Your task to perform on an android device: open device folders in google photos Image 0: 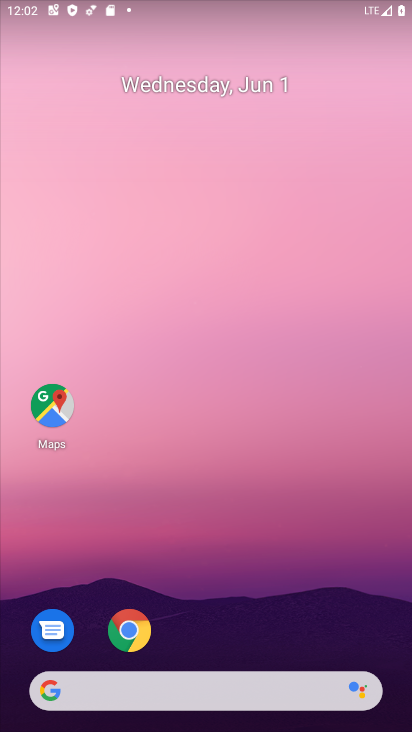
Step 0: drag from (271, 630) to (255, 180)
Your task to perform on an android device: open device folders in google photos Image 1: 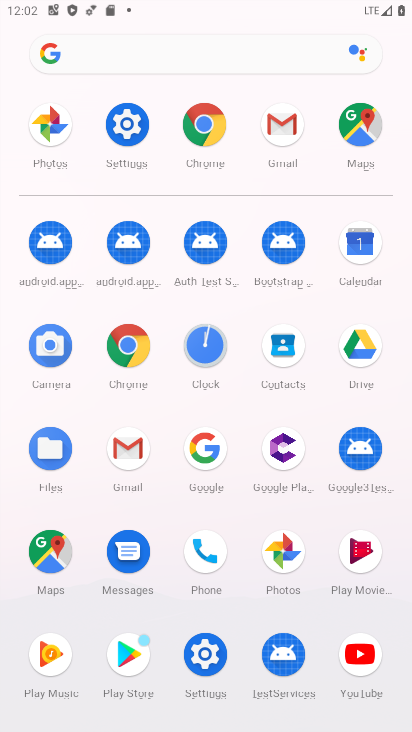
Step 1: click (46, 120)
Your task to perform on an android device: open device folders in google photos Image 2: 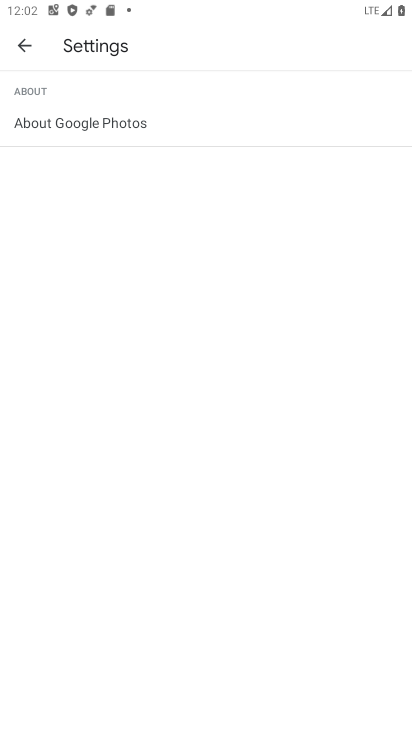
Step 2: click (22, 45)
Your task to perform on an android device: open device folders in google photos Image 3: 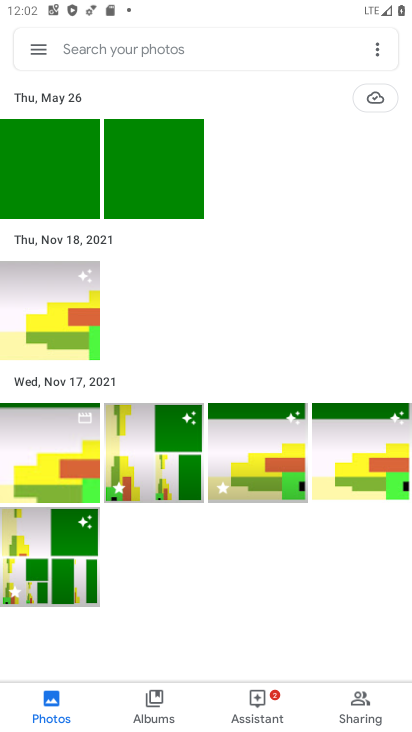
Step 3: click (157, 694)
Your task to perform on an android device: open device folders in google photos Image 4: 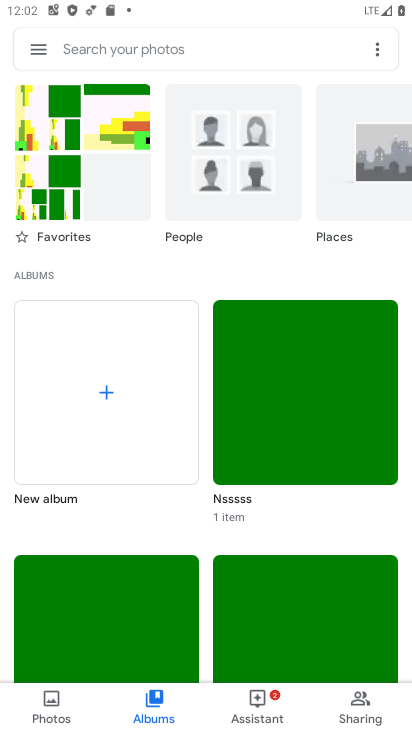
Step 4: drag from (172, 434) to (242, 60)
Your task to perform on an android device: open device folders in google photos Image 5: 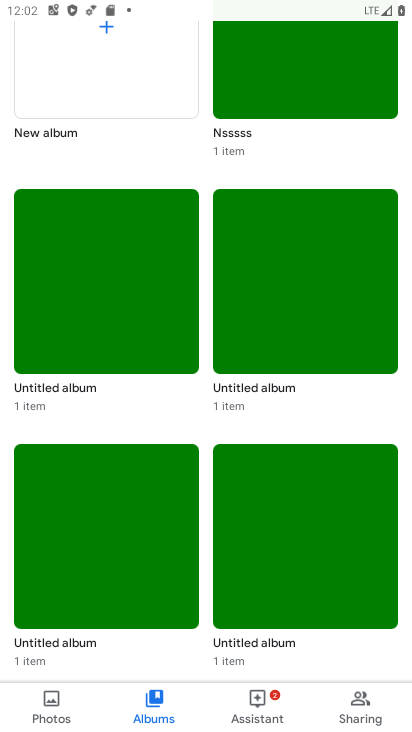
Step 5: drag from (275, 423) to (304, 695)
Your task to perform on an android device: open device folders in google photos Image 6: 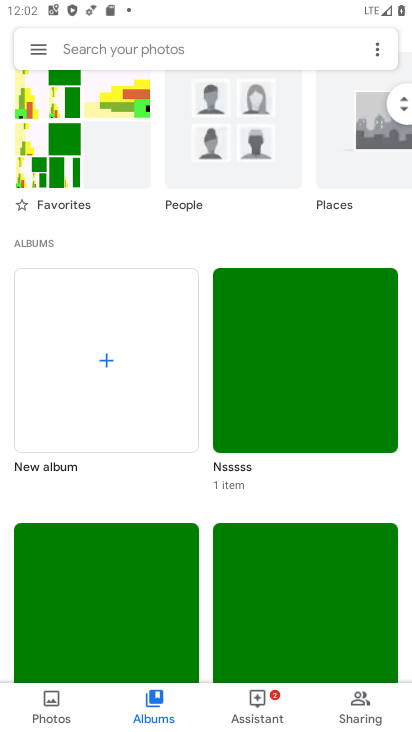
Step 6: click (237, 144)
Your task to perform on an android device: open device folders in google photos Image 7: 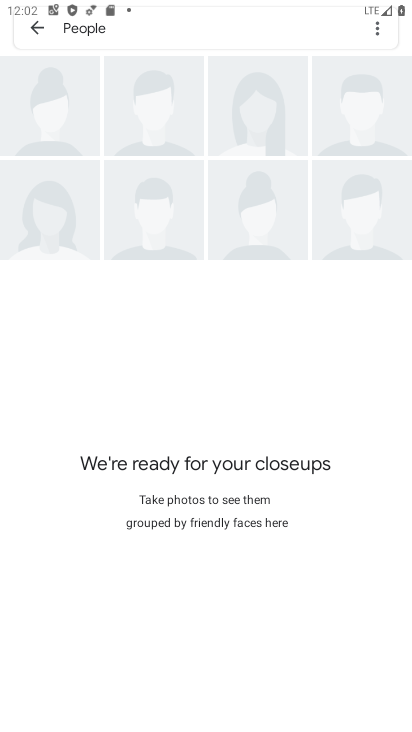
Step 7: task complete